Your task to perform on an android device: turn smart compose on in the gmail app Image 0: 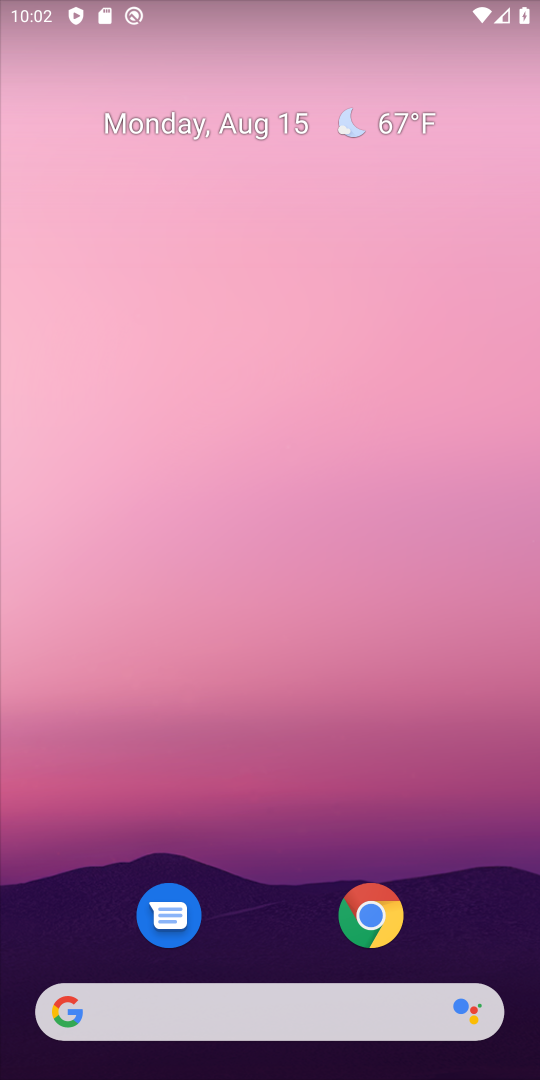
Step 0: drag from (446, 940) to (358, 46)
Your task to perform on an android device: turn smart compose on in the gmail app Image 1: 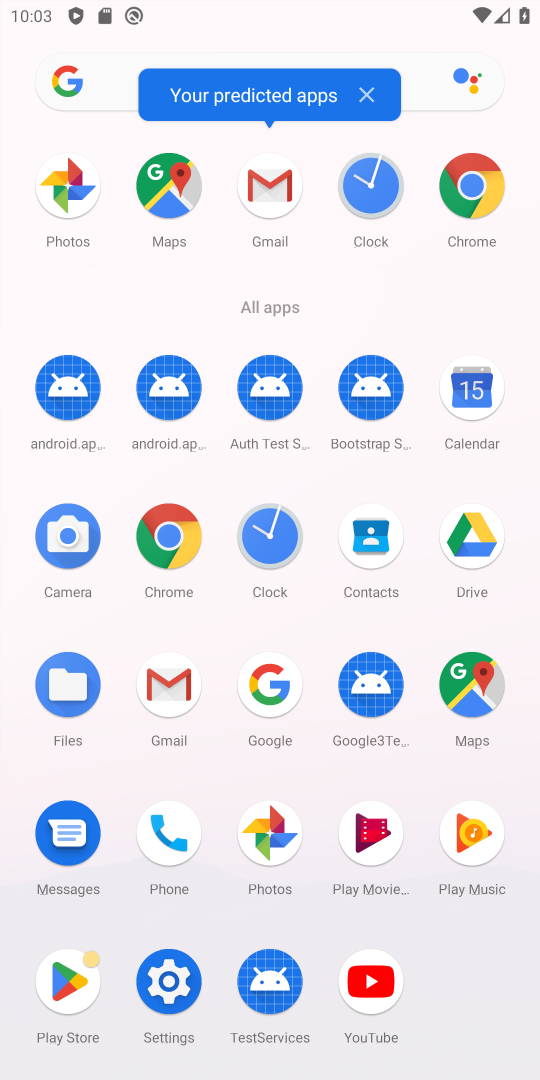
Step 1: click (259, 194)
Your task to perform on an android device: turn smart compose on in the gmail app Image 2: 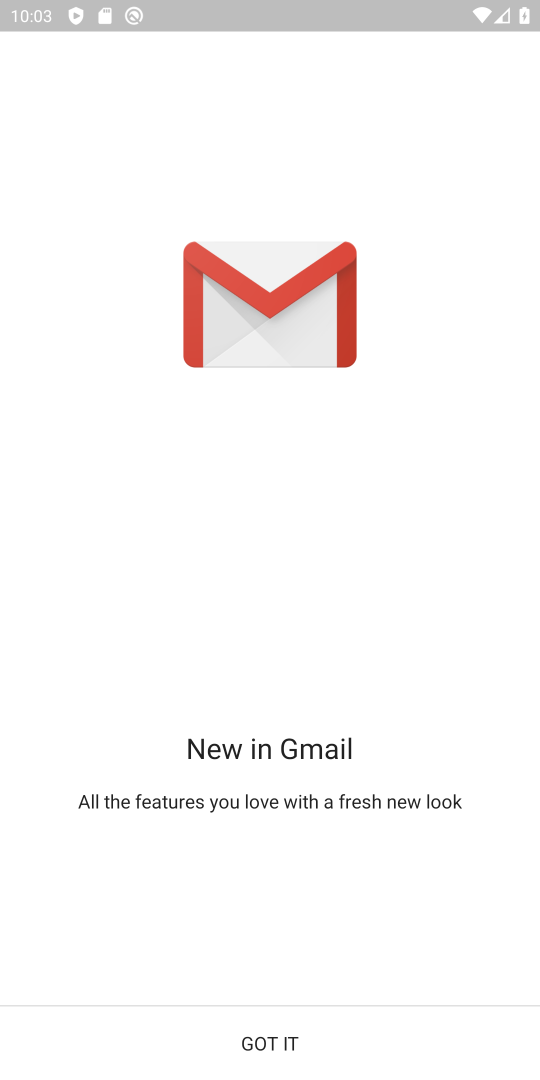
Step 2: click (241, 1054)
Your task to perform on an android device: turn smart compose on in the gmail app Image 3: 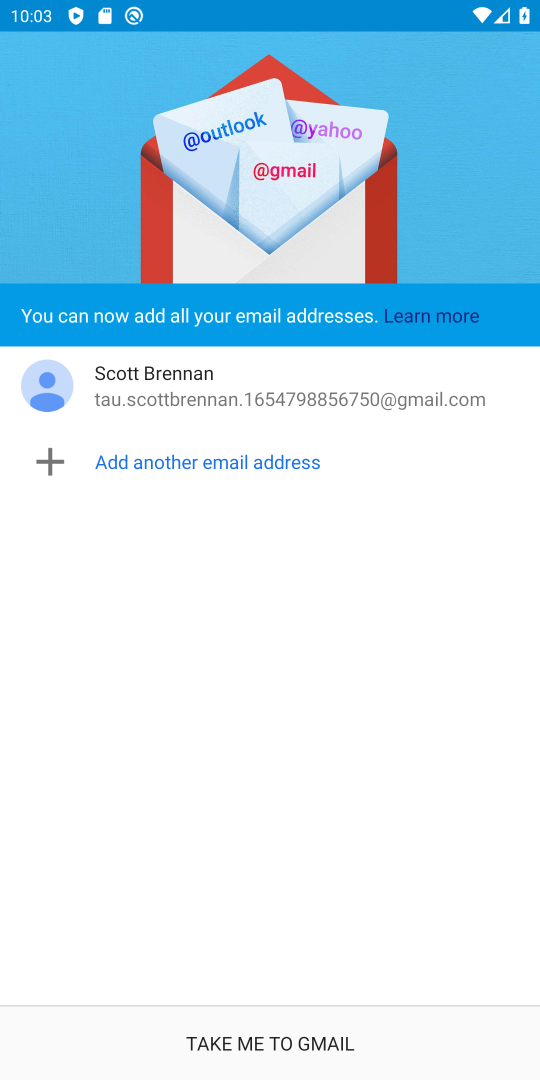
Step 3: click (298, 1046)
Your task to perform on an android device: turn smart compose on in the gmail app Image 4: 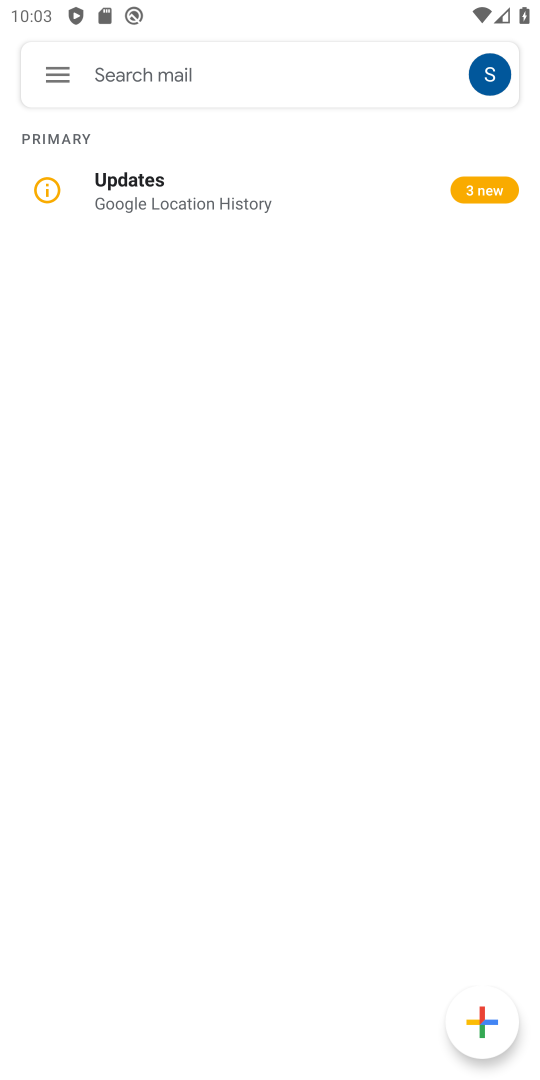
Step 4: click (56, 78)
Your task to perform on an android device: turn smart compose on in the gmail app Image 5: 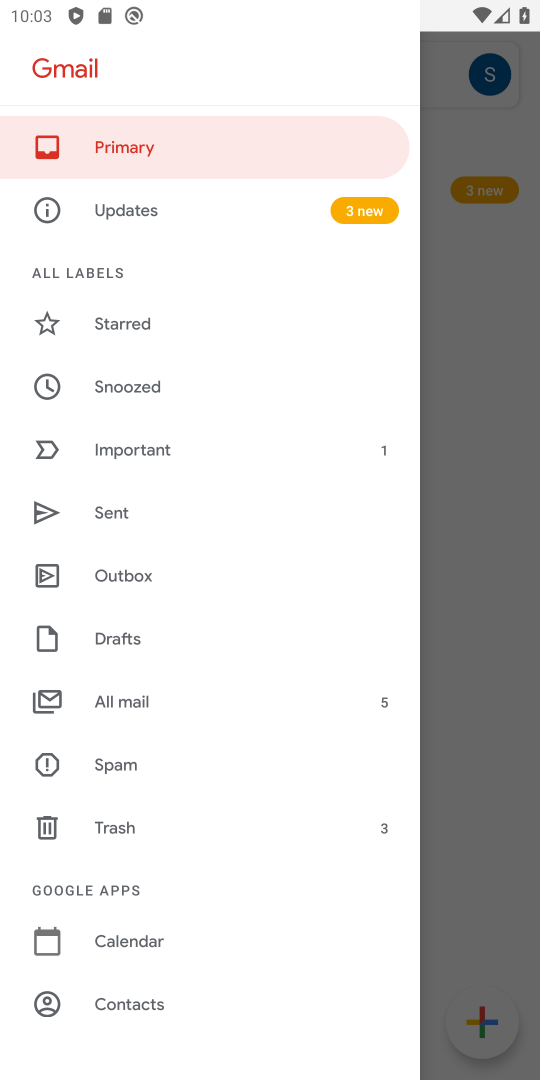
Step 5: drag from (210, 1007) to (150, 745)
Your task to perform on an android device: turn smart compose on in the gmail app Image 6: 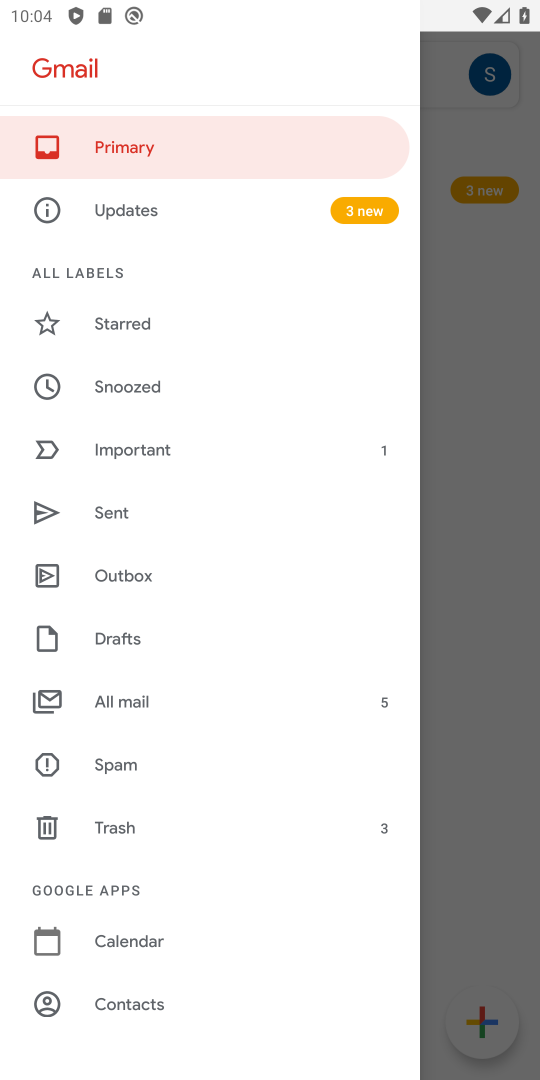
Step 6: drag from (177, 885) to (277, 304)
Your task to perform on an android device: turn smart compose on in the gmail app Image 7: 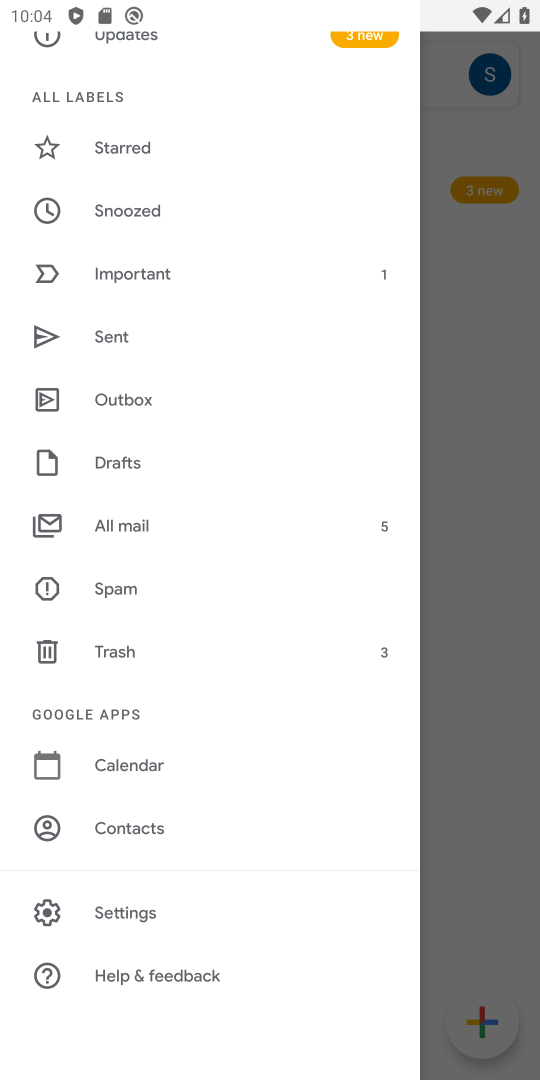
Step 7: click (133, 913)
Your task to perform on an android device: turn smart compose on in the gmail app Image 8: 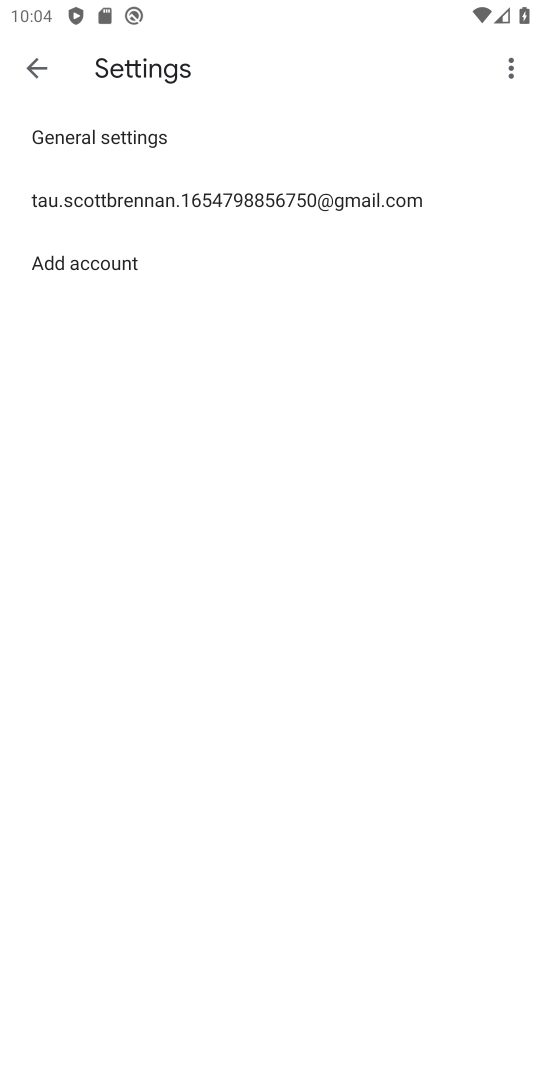
Step 8: click (145, 207)
Your task to perform on an android device: turn smart compose on in the gmail app Image 9: 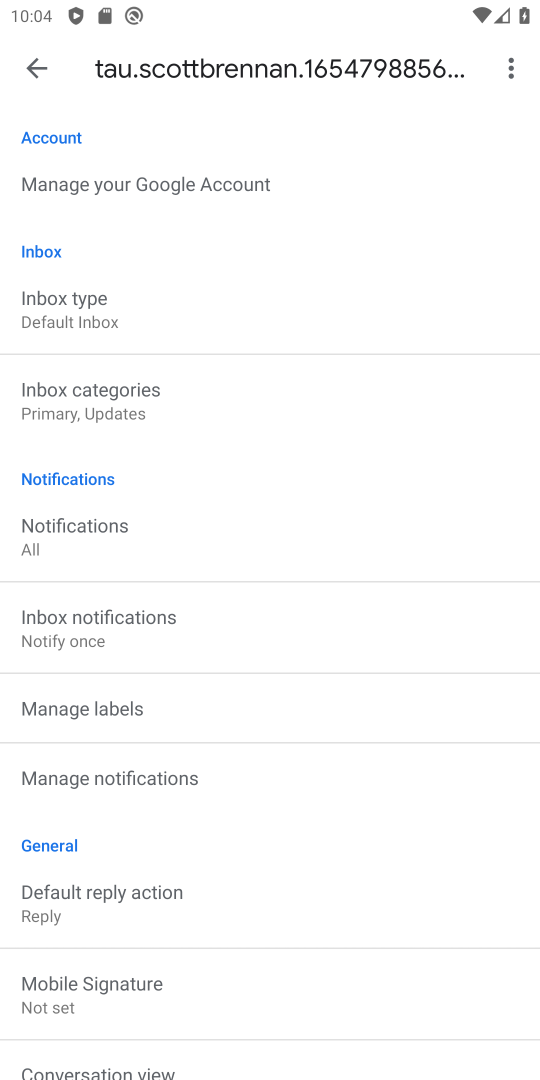
Step 9: task complete